Your task to perform on an android device: turn off data saver in the chrome app Image 0: 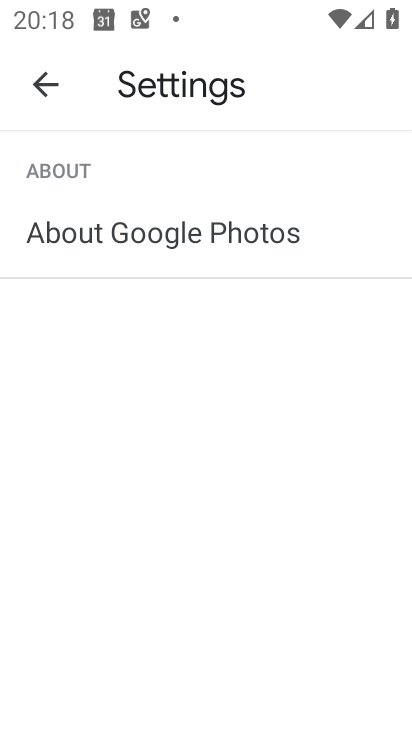
Step 0: press home button
Your task to perform on an android device: turn off data saver in the chrome app Image 1: 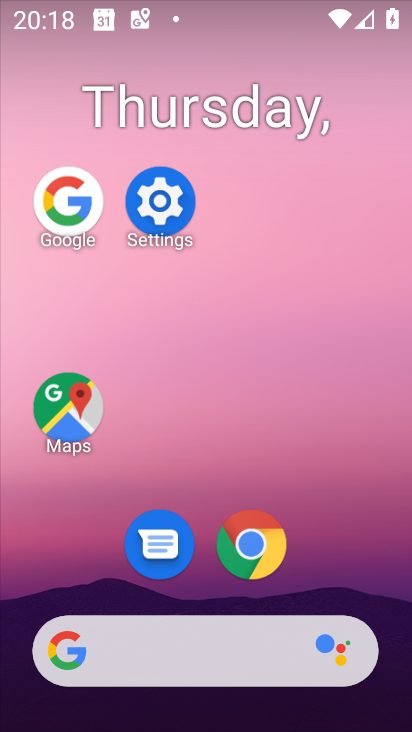
Step 1: drag from (231, 587) to (217, 260)
Your task to perform on an android device: turn off data saver in the chrome app Image 2: 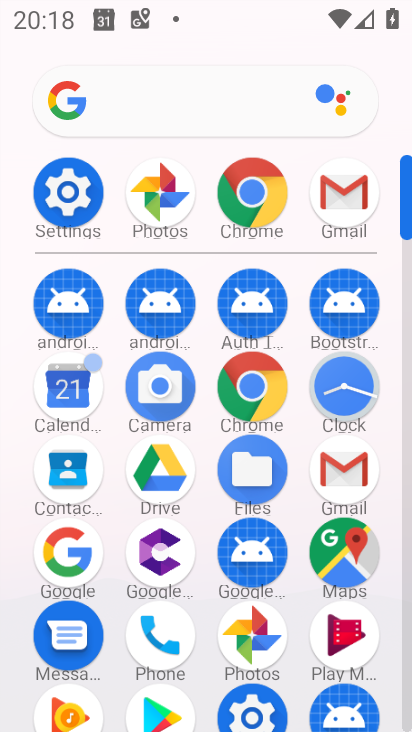
Step 2: click (252, 183)
Your task to perform on an android device: turn off data saver in the chrome app Image 3: 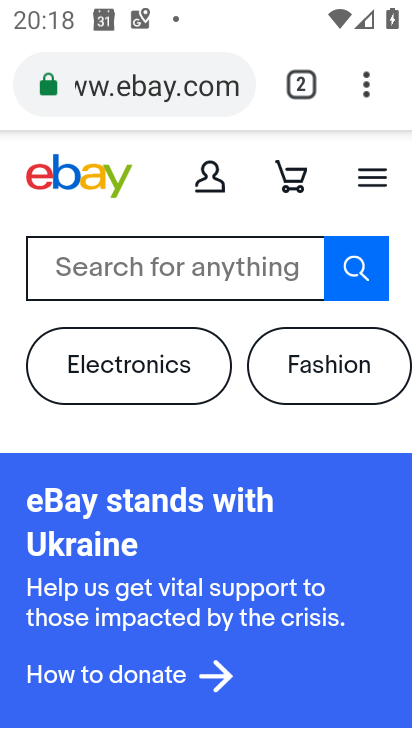
Step 3: click (367, 88)
Your task to perform on an android device: turn off data saver in the chrome app Image 4: 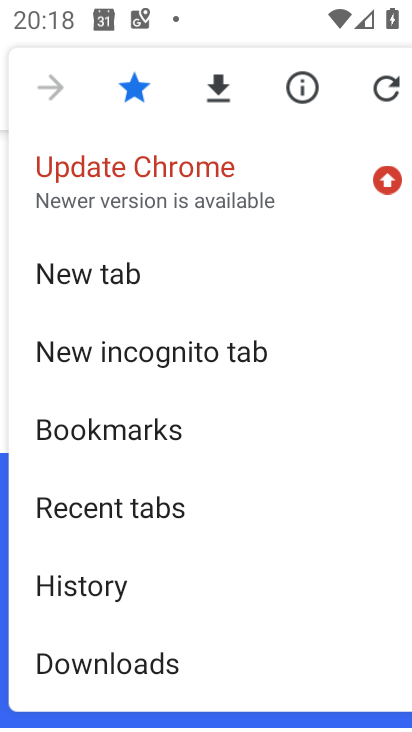
Step 4: drag from (152, 624) to (144, 177)
Your task to perform on an android device: turn off data saver in the chrome app Image 5: 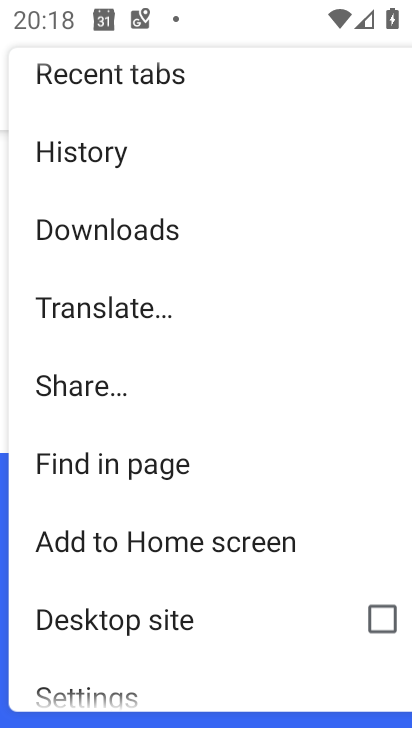
Step 5: click (88, 688)
Your task to perform on an android device: turn off data saver in the chrome app Image 6: 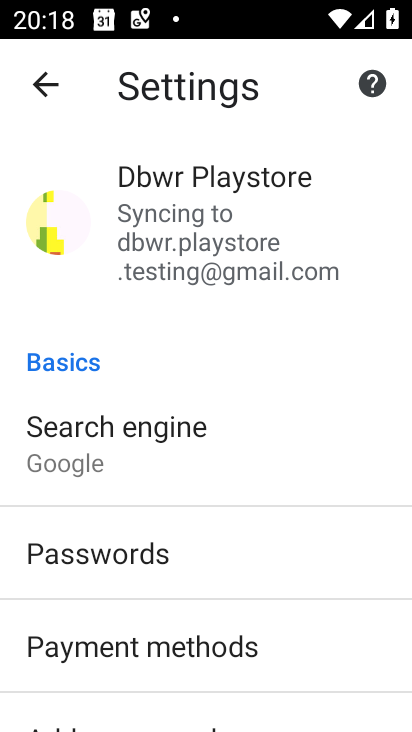
Step 6: drag from (212, 587) to (264, 109)
Your task to perform on an android device: turn off data saver in the chrome app Image 7: 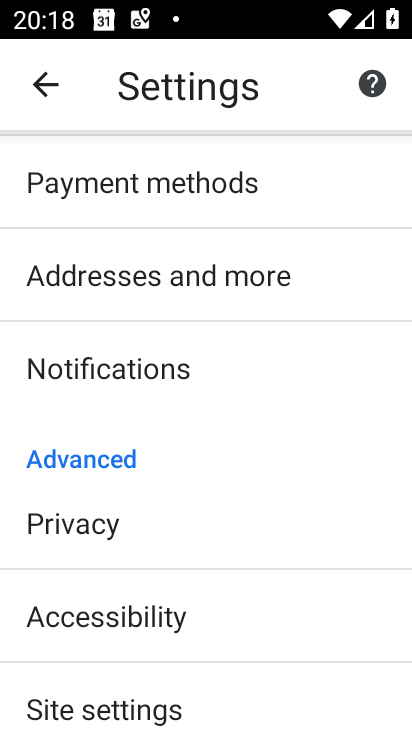
Step 7: drag from (122, 648) to (137, 551)
Your task to perform on an android device: turn off data saver in the chrome app Image 8: 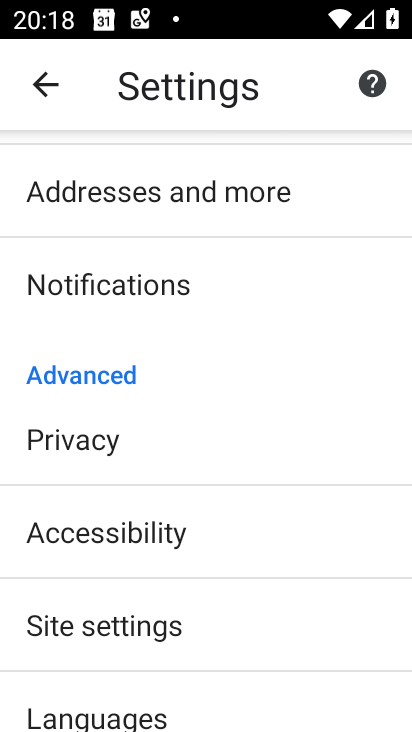
Step 8: drag from (101, 645) to (120, 514)
Your task to perform on an android device: turn off data saver in the chrome app Image 9: 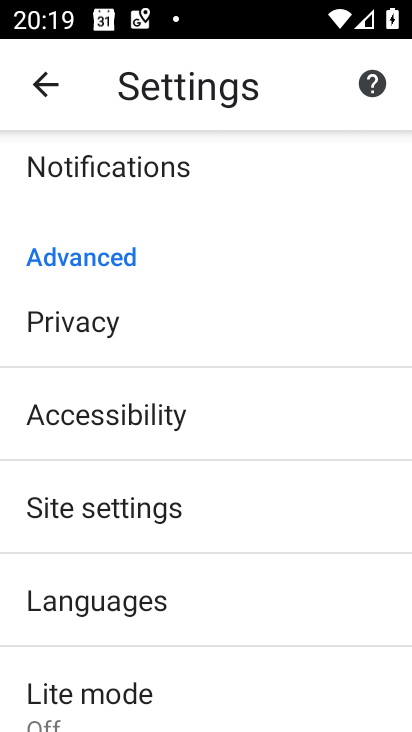
Step 9: click (72, 681)
Your task to perform on an android device: turn off data saver in the chrome app Image 10: 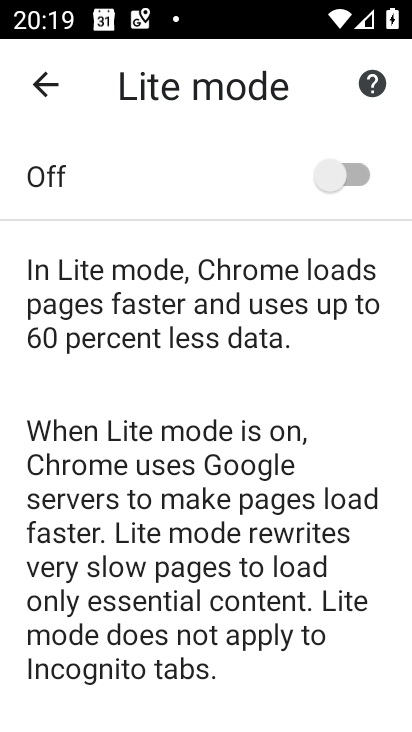
Step 10: click (358, 171)
Your task to perform on an android device: turn off data saver in the chrome app Image 11: 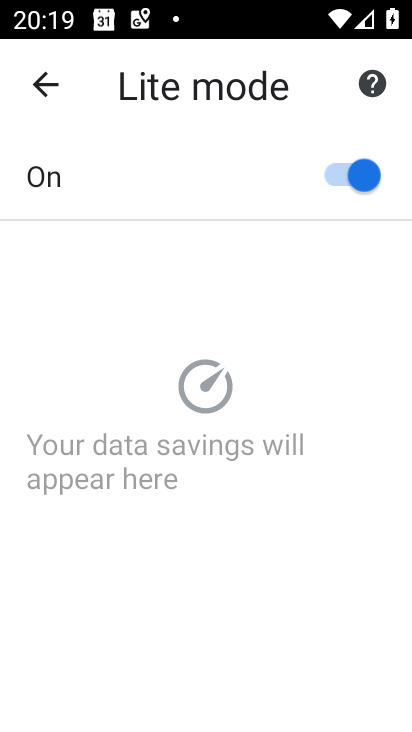
Step 11: click (358, 171)
Your task to perform on an android device: turn off data saver in the chrome app Image 12: 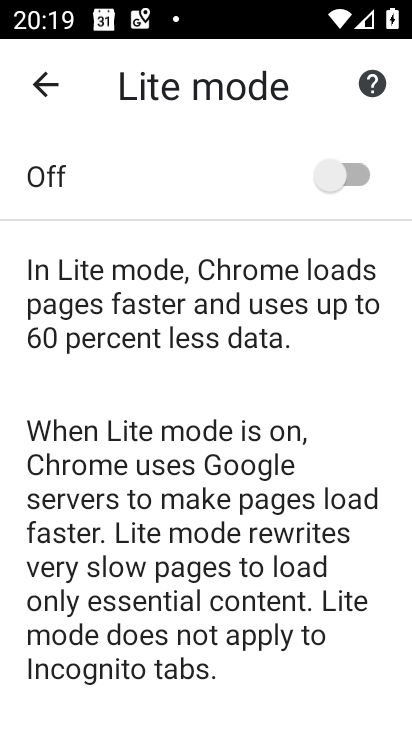
Step 12: task complete